Your task to perform on an android device: open wifi settings Image 0: 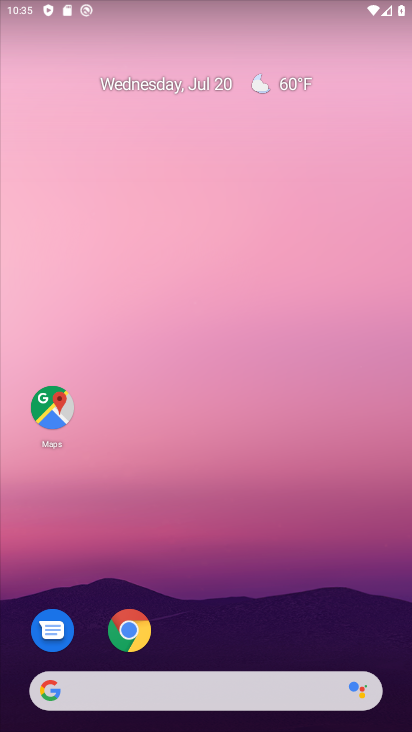
Step 0: drag from (249, 647) to (224, 210)
Your task to perform on an android device: open wifi settings Image 1: 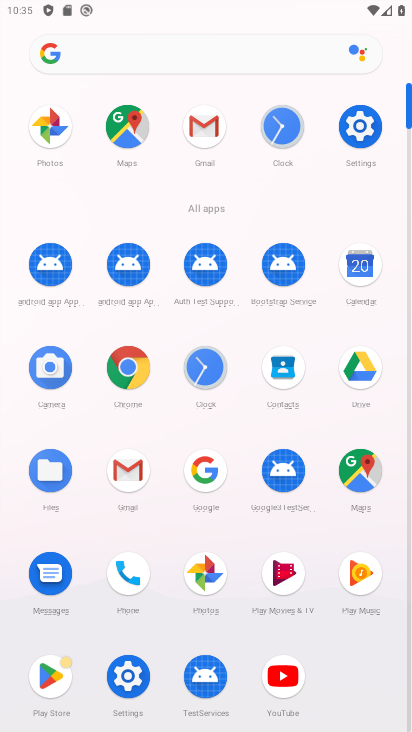
Step 1: click (355, 119)
Your task to perform on an android device: open wifi settings Image 2: 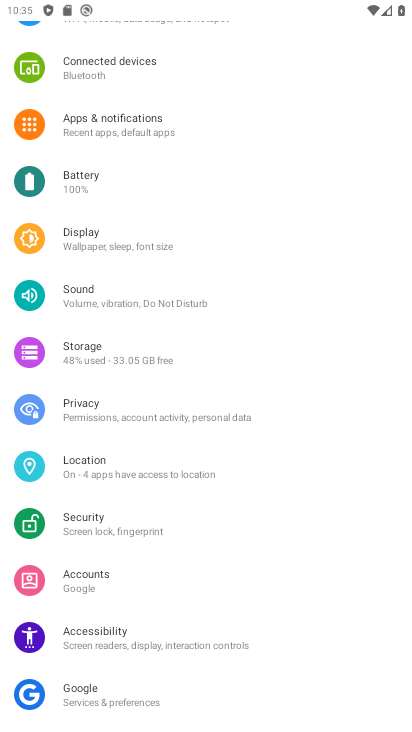
Step 2: drag from (190, 162) to (116, 604)
Your task to perform on an android device: open wifi settings Image 3: 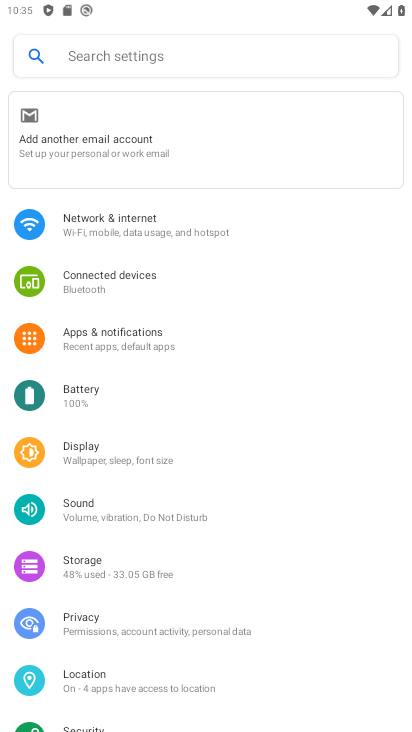
Step 3: click (131, 229)
Your task to perform on an android device: open wifi settings Image 4: 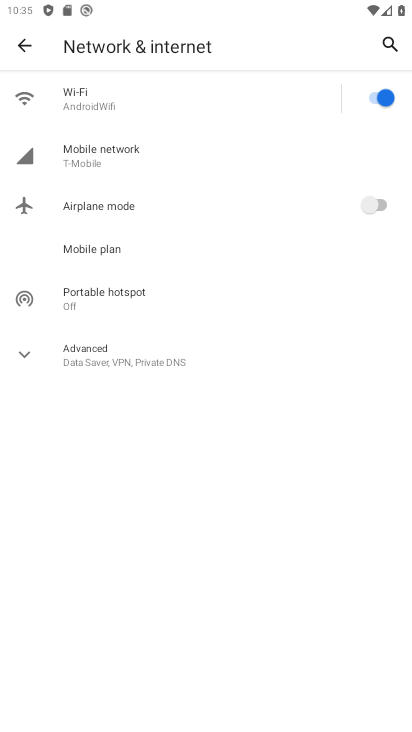
Step 4: click (95, 99)
Your task to perform on an android device: open wifi settings Image 5: 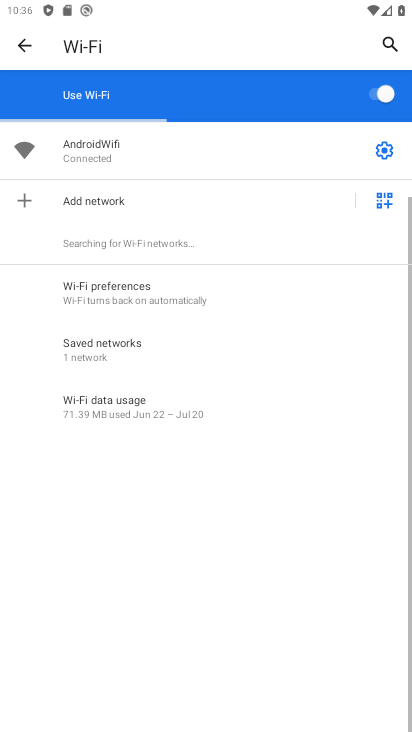
Step 5: task complete